Your task to perform on an android device: Show me productivity apps on the Play Store Image 0: 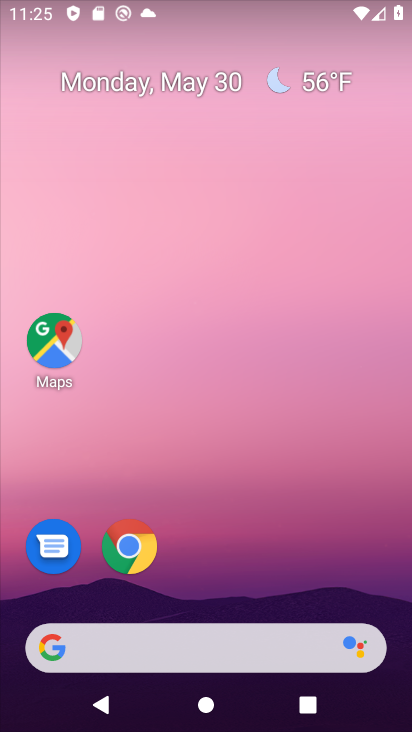
Step 0: drag from (257, 567) to (244, 189)
Your task to perform on an android device: Show me productivity apps on the Play Store Image 1: 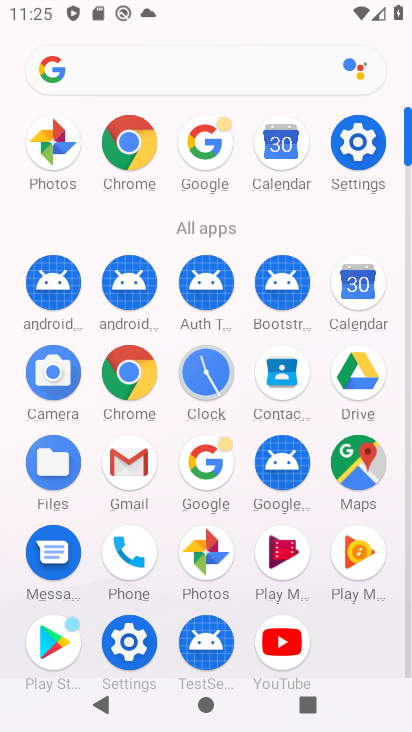
Step 1: drag from (174, 609) to (165, 471)
Your task to perform on an android device: Show me productivity apps on the Play Store Image 2: 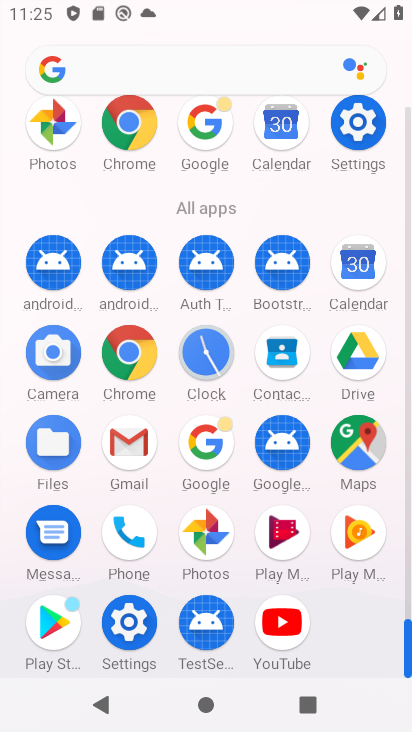
Step 2: click (52, 622)
Your task to perform on an android device: Show me productivity apps on the Play Store Image 3: 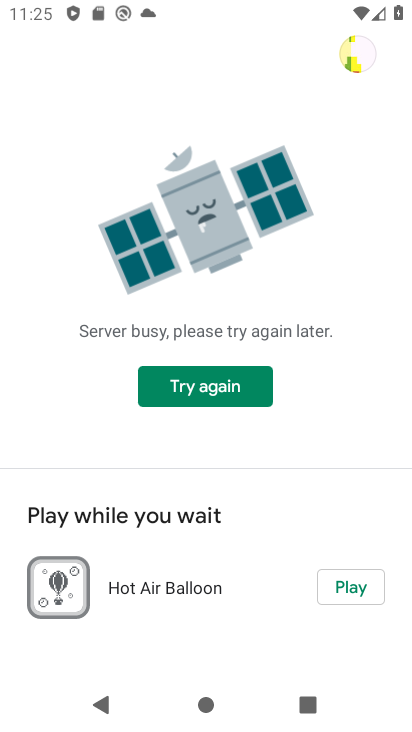
Step 3: click (206, 394)
Your task to perform on an android device: Show me productivity apps on the Play Store Image 4: 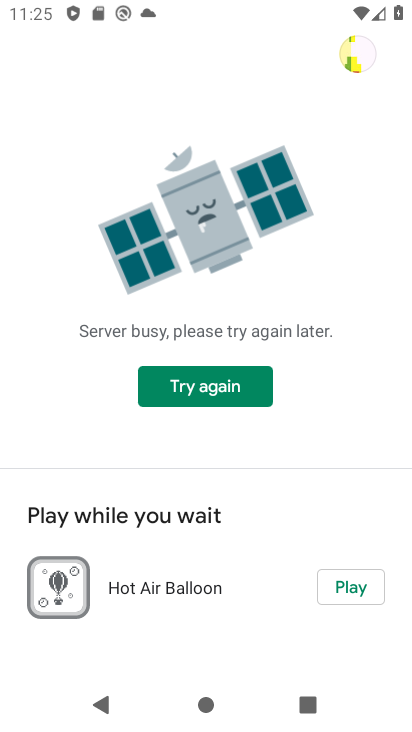
Step 4: task complete